Your task to perform on an android device: Go to Amazon Image 0: 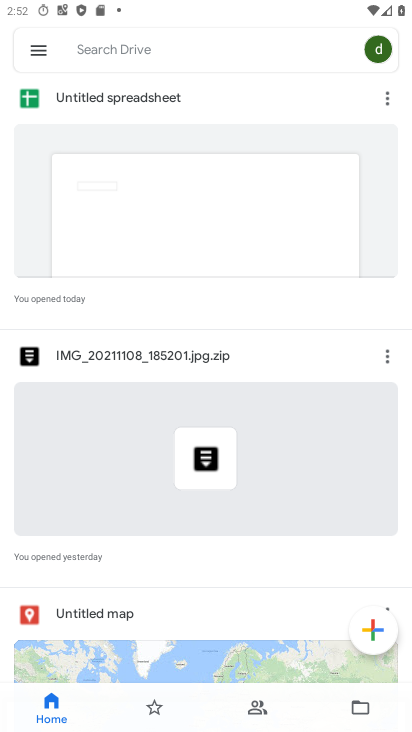
Step 0: press home button
Your task to perform on an android device: Go to Amazon Image 1: 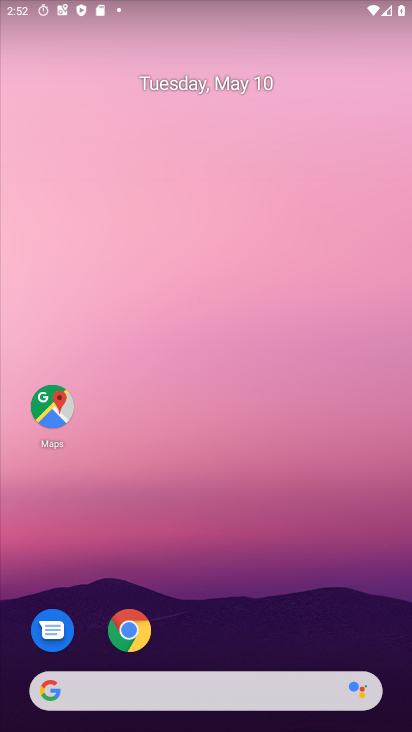
Step 1: click (131, 625)
Your task to perform on an android device: Go to Amazon Image 2: 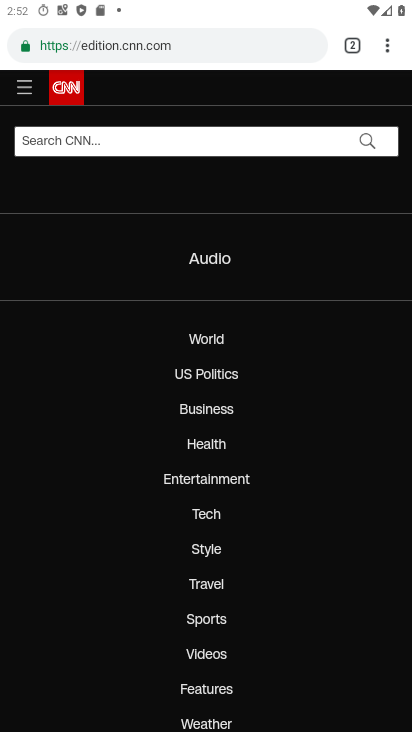
Step 2: click (354, 46)
Your task to perform on an android device: Go to Amazon Image 3: 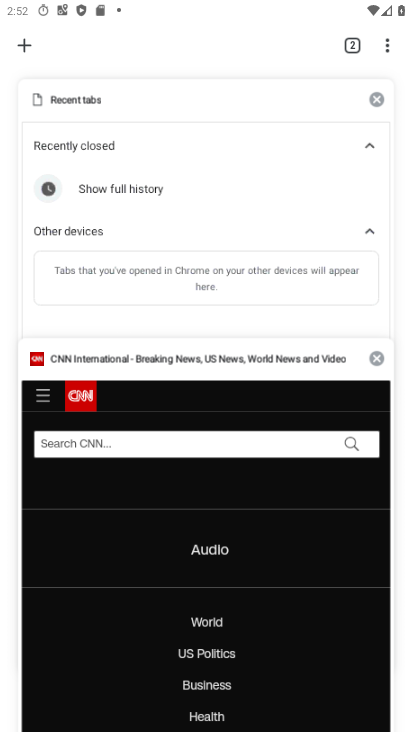
Step 3: click (213, 196)
Your task to perform on an android device: Go to Amazon Image 4: 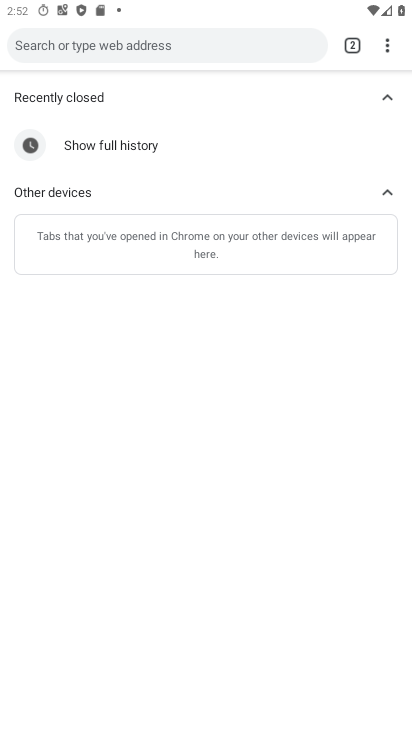
Step 4: click (388, 31)
Your task to perform on an android device: Go to Amazon Image 5: 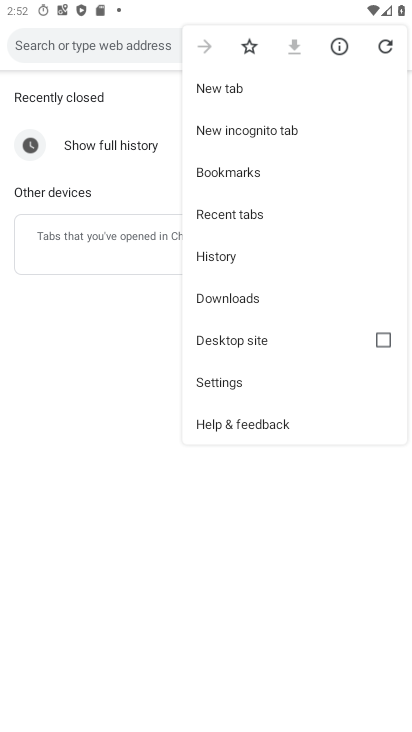
Step 5: click (240, 84)
Your task to perform on an android device: Go to Amazon Image 6: 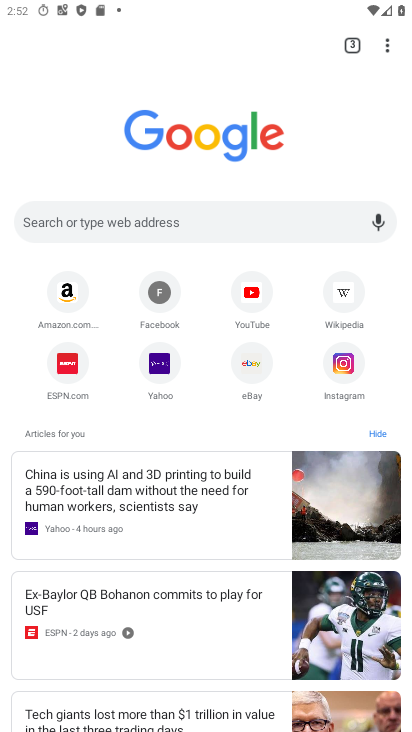
Step 6: click (75, 301)
Your task to perform on an android device: Go to Amazon Image 7: 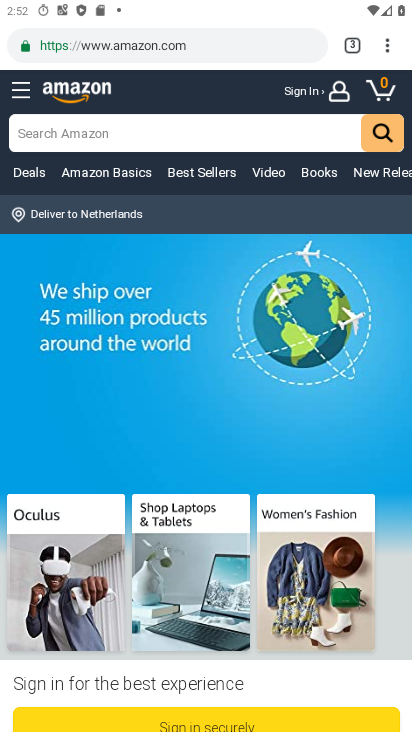
Step 7: task complete